Your task to perform on an android device: toggle airplane mode Image 0: 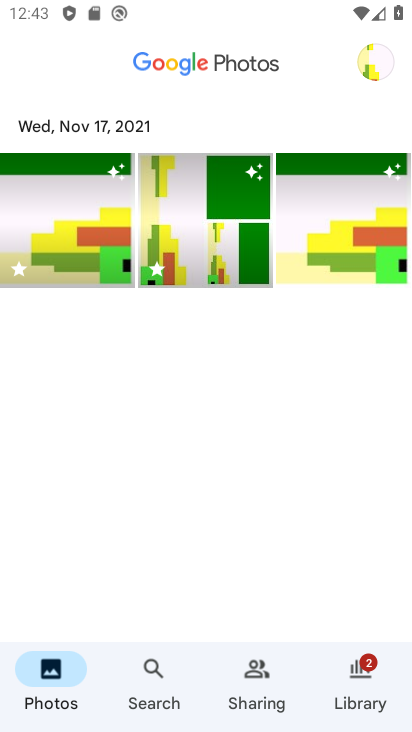
Step 0: press home button
Your task to perform on an android device: toggle airplane mode Image 1: 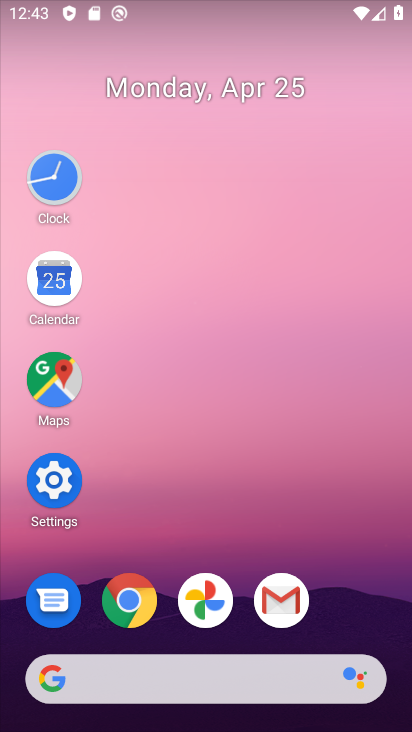
Step 1: click (48, 484)
Your task to perform on an android device: toggle airplane mode Image 2: 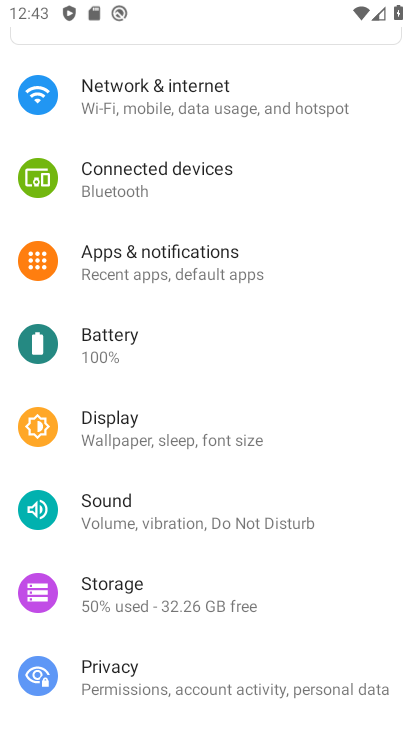
Step 2: click (139, 96)
Your task to perform on an android device: toggle airplane mode Image 3: 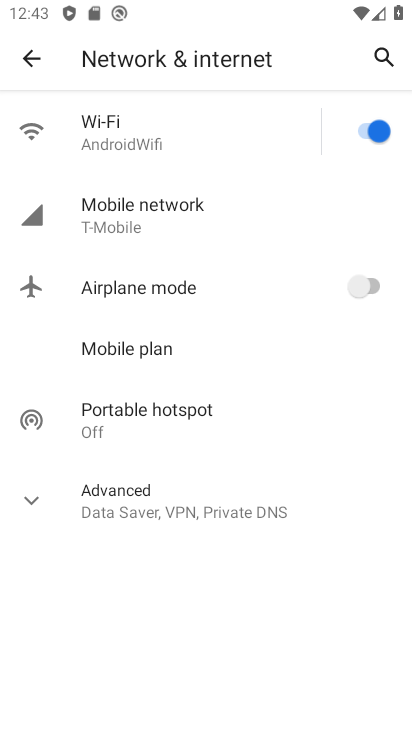
Step 3: click (354, 282)
Your task to perform on an android device: toggle airplane mode Image 4: 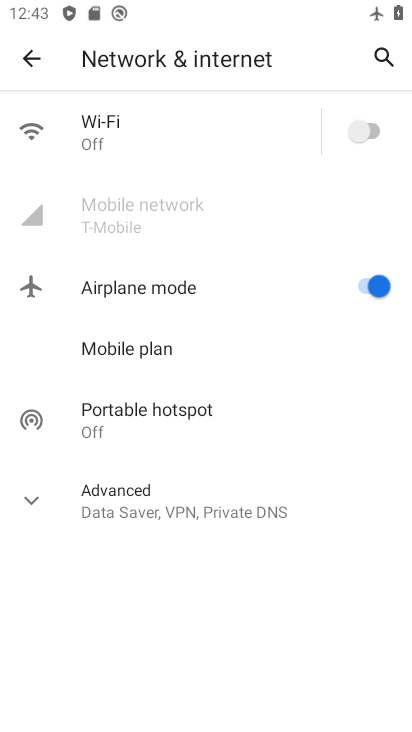
Step 4: task complete